Your task to perform on an android device: What's the weather like in San Francisco? Image 0: 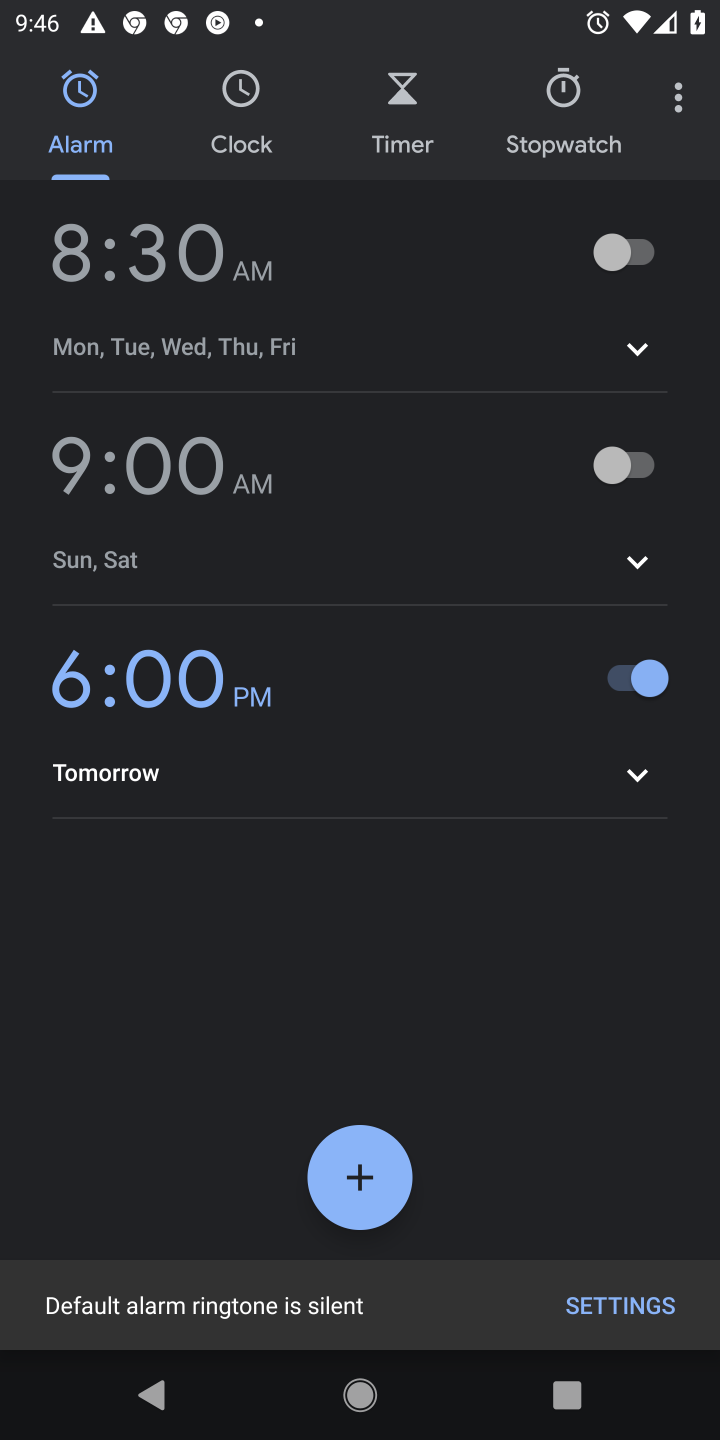
Step 0: press home button
Your task to perform on an android device: What's the weather like in San Francisco? Image 1: 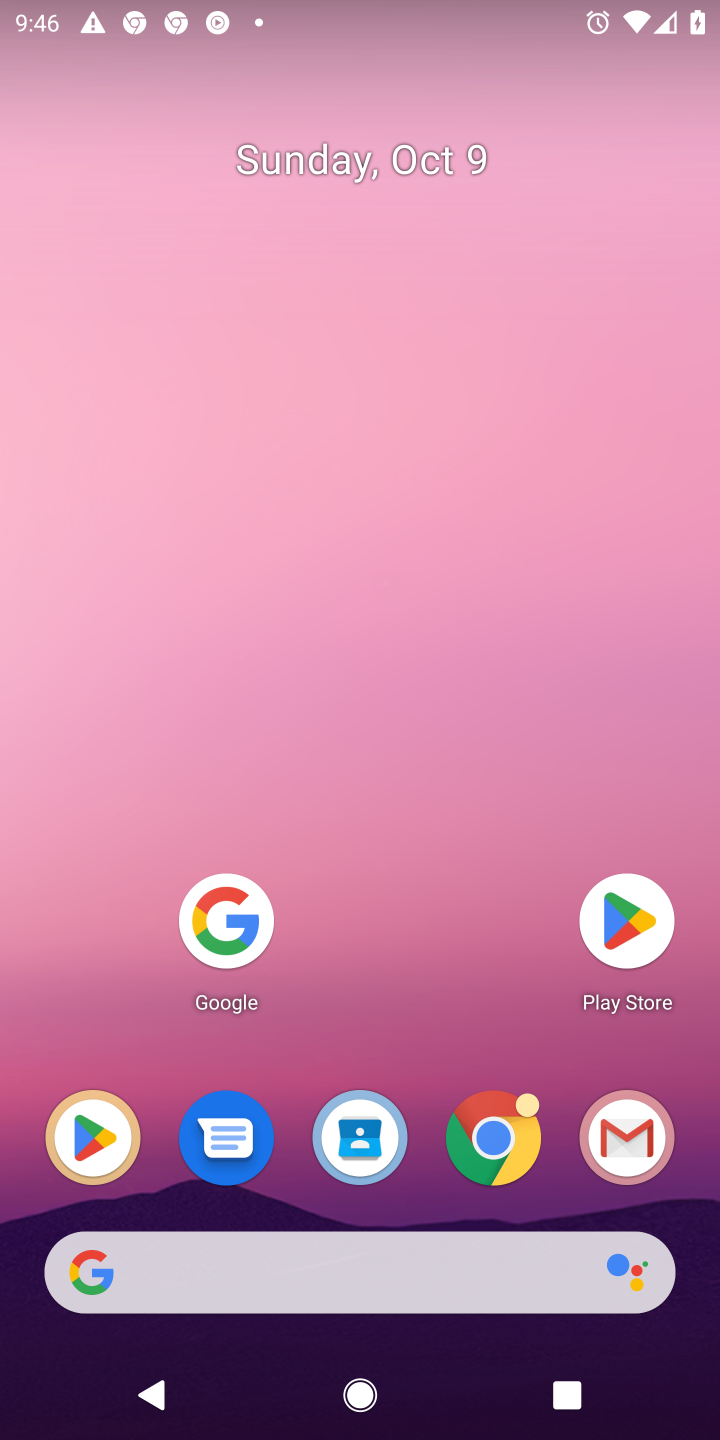
Step 1: click (223, 925)
Your task to perform on an android device: What's the weather like in San Francisco? Image 2: 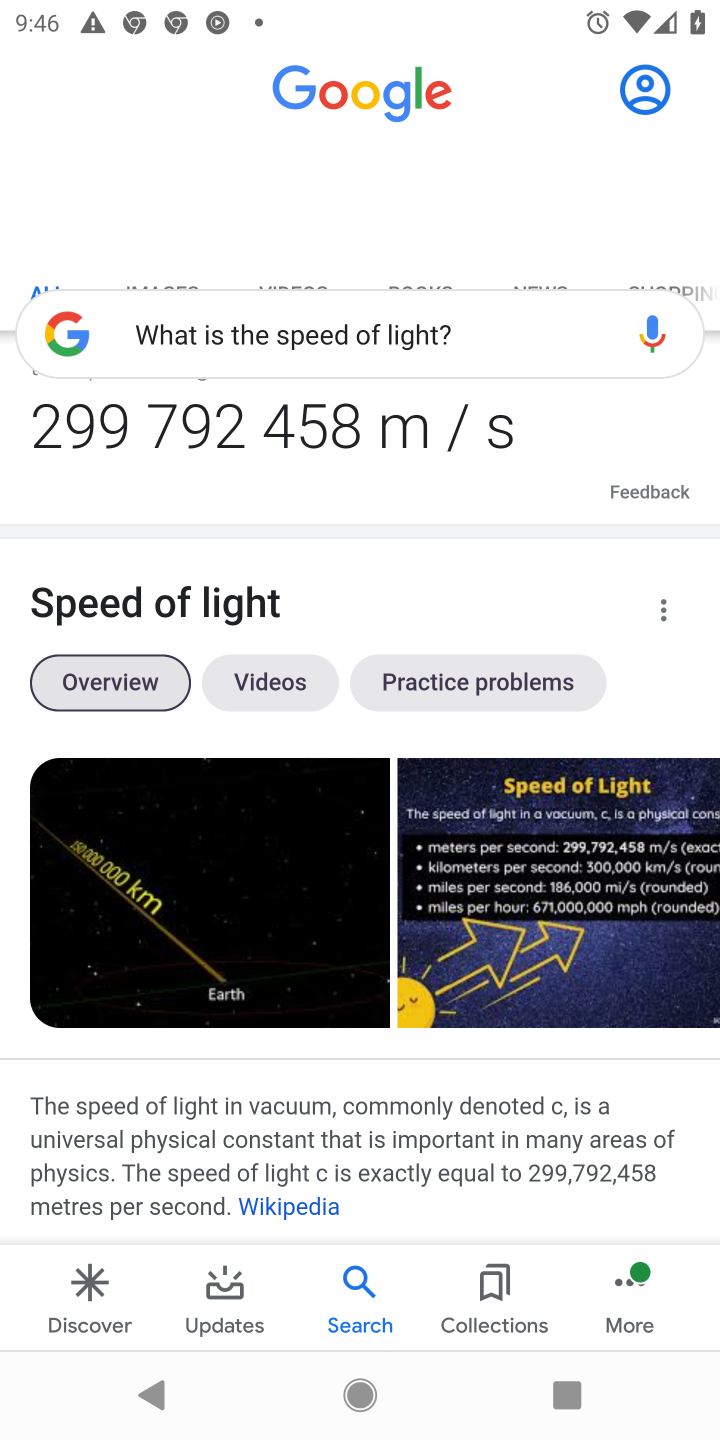
Step 2: click (468, 339)
Your task to perform on an android device: What's the weather like in San Francisco? Image 3: 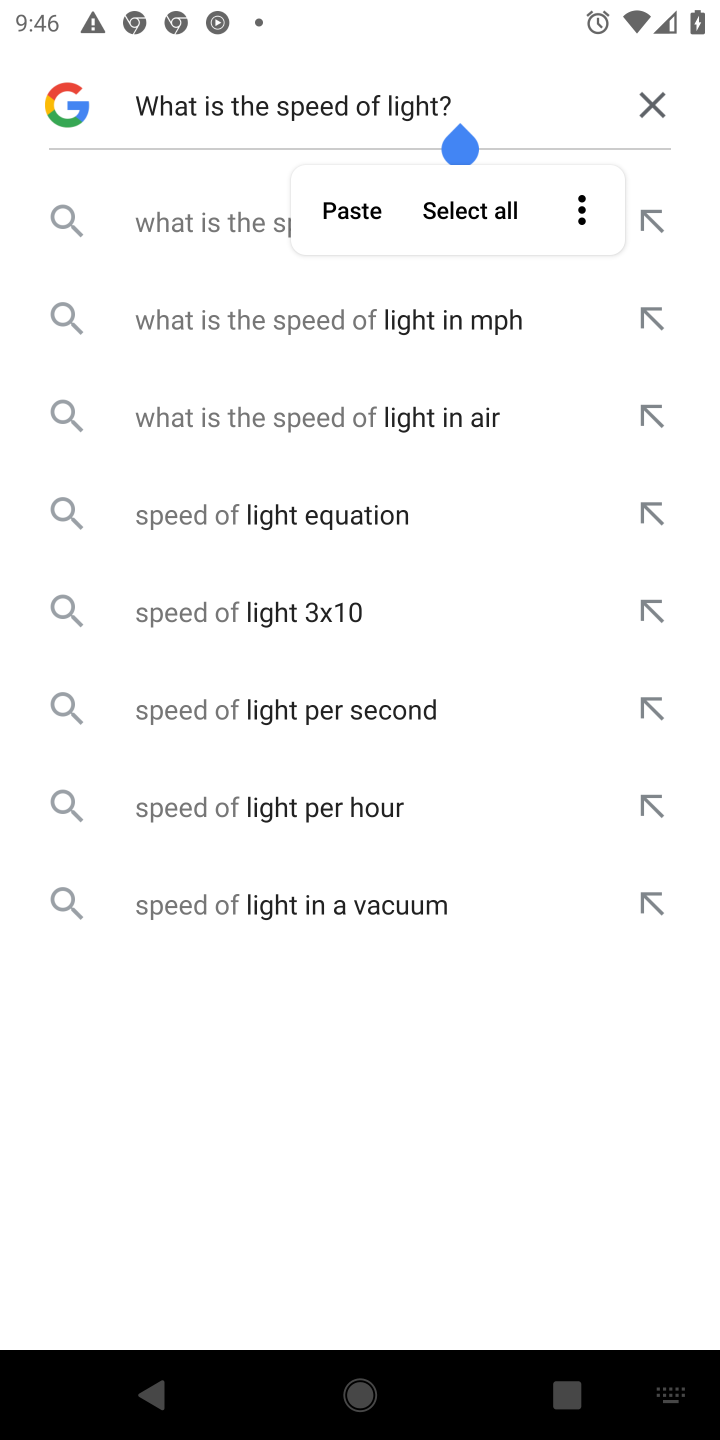
Step 3: click (663, 93)
Your task to perform on an android device: What's the weather like in San Francisco? Image 4: 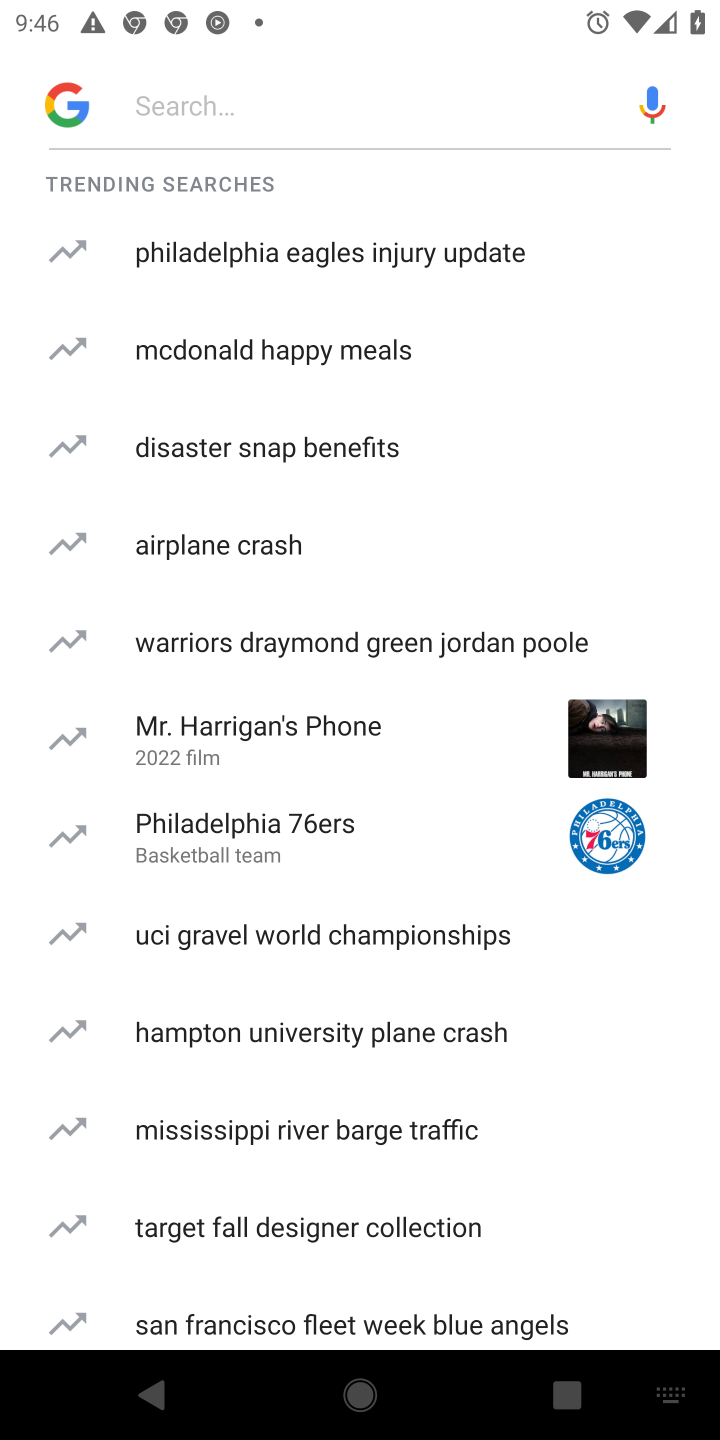
Step 4: drag from (63, 1426) to (192, 1435)
Your task to perform on an android device: What's the weather like in San Francisco? Image 5: 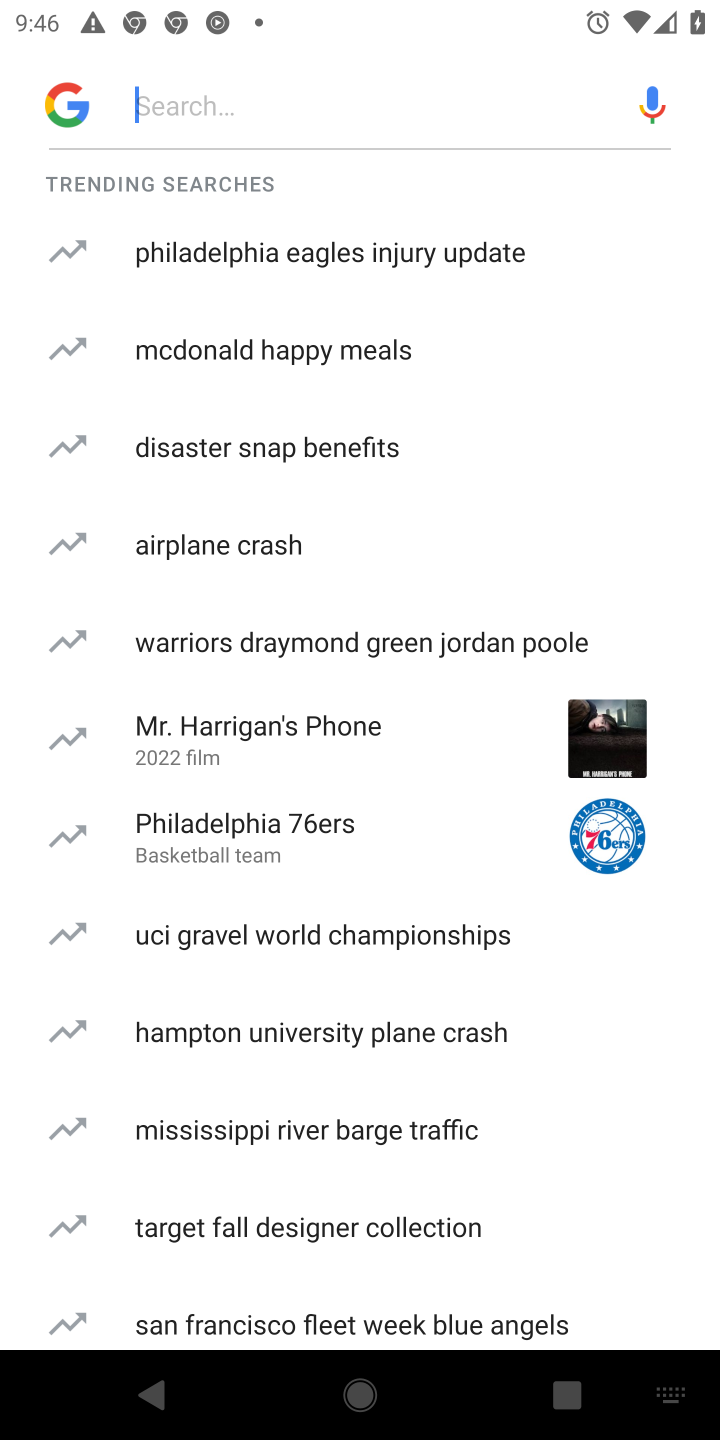
Step 5: click (348, 90)
Your task to perform on an android device: What's the weather like in San Francisco? Image 6: 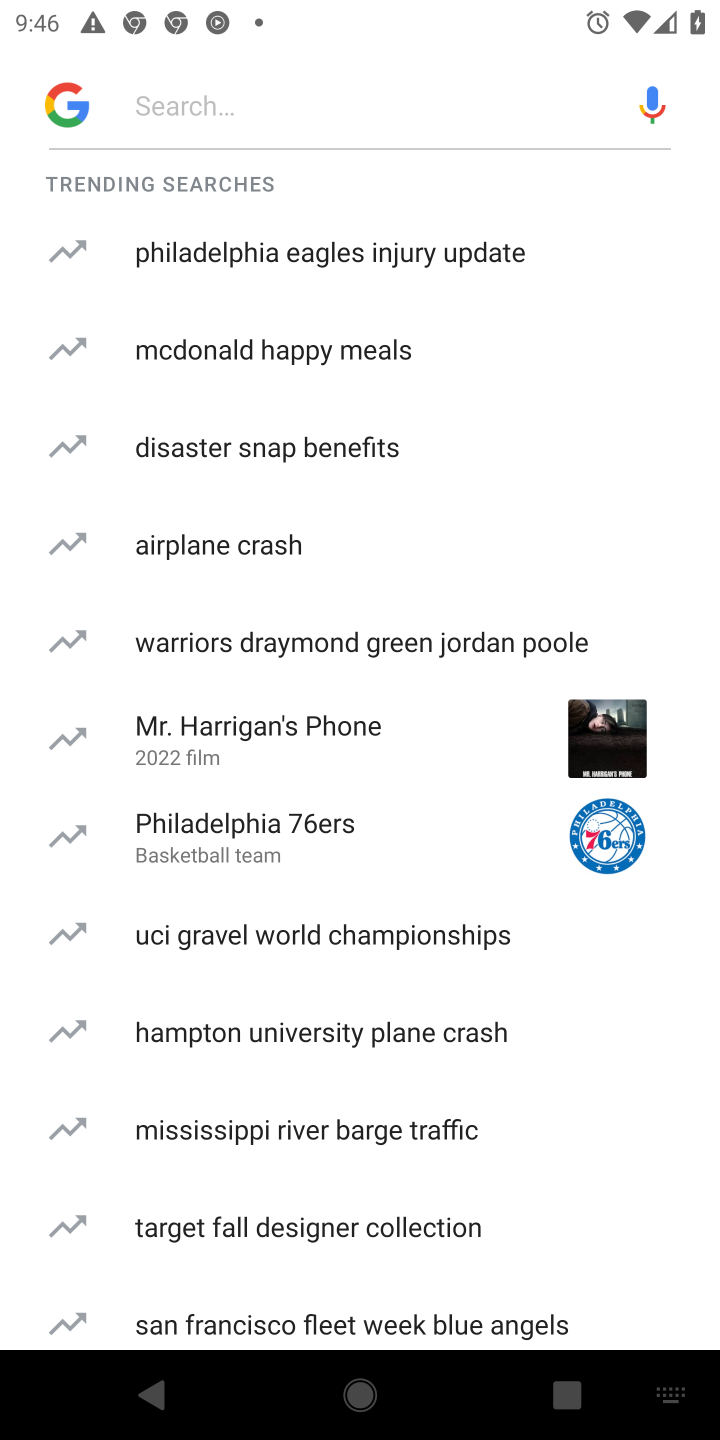
Step 6: type "What's the weather like in San Francisco? "
Your task to perform on an android device: What's the weather like in San Francisco? Image 7: 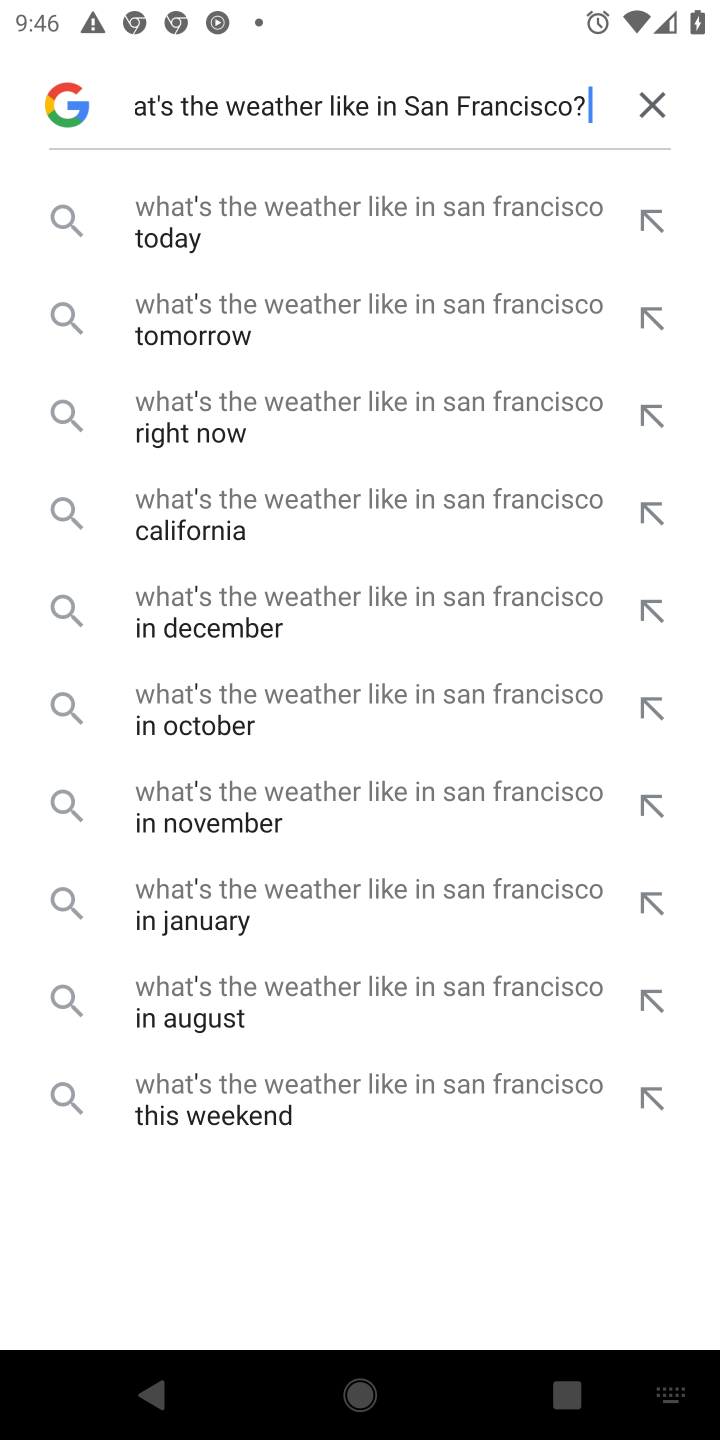
Step 7: click (293, 204)
Your task to perform on an android device: What's the weather like in San Francisco? Image 8: 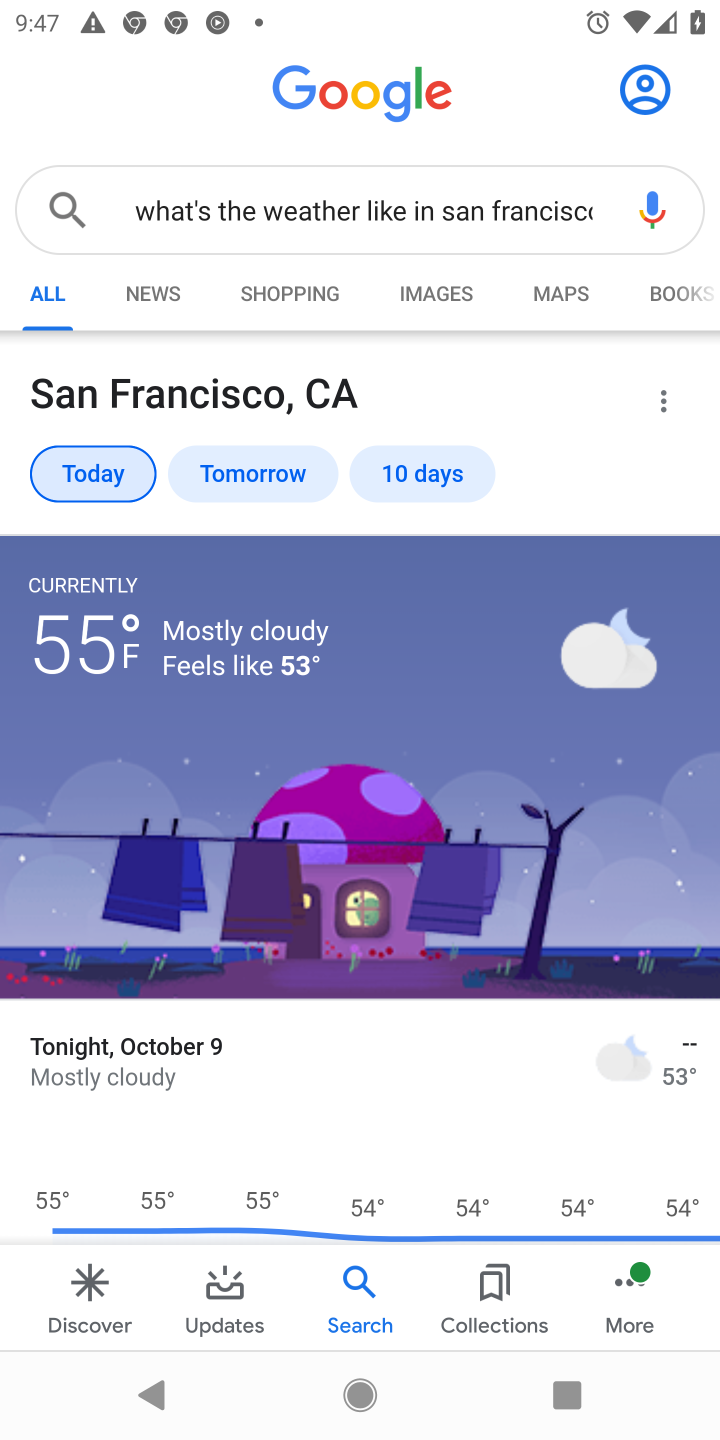
Step 8: task complete